Your task to perform on an android device: change the clock style Image 0: 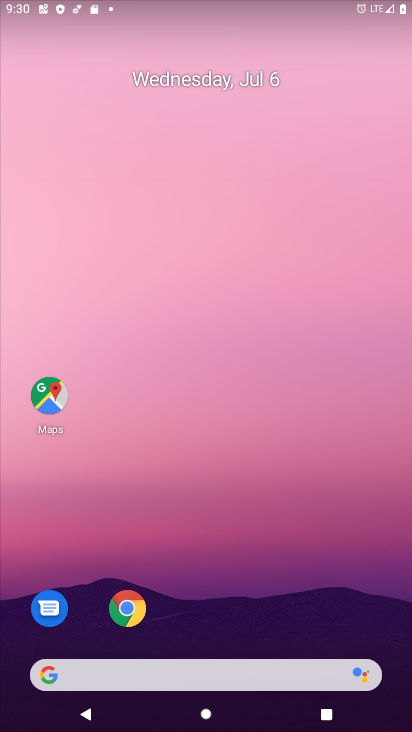
Step 0: drag from (360, 621) to (242, 70)
Your task to perform on an android device: change the clock style Image 1: 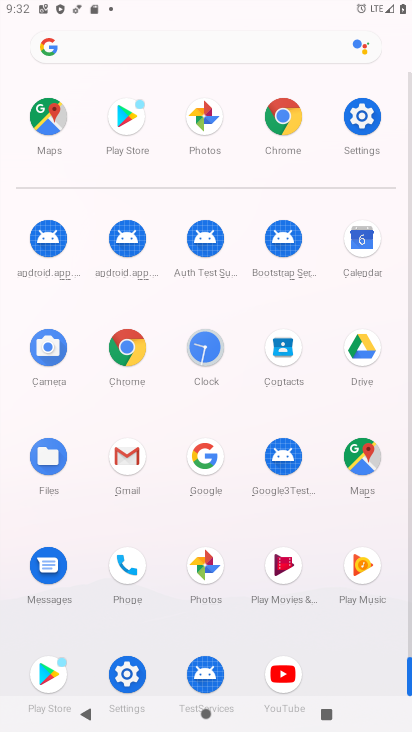
Step 1: click (207, 343)
Your task to perform on an android device: change the clock style Image 2: 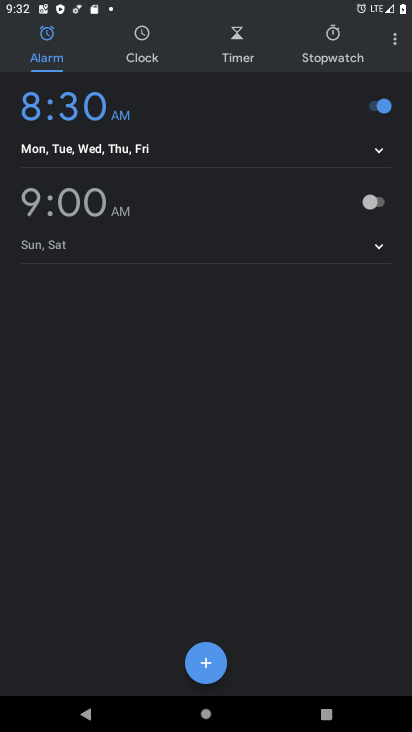
Step 2: click (394, 45)
Your task to perform on an android device: change the clock style Image 3: 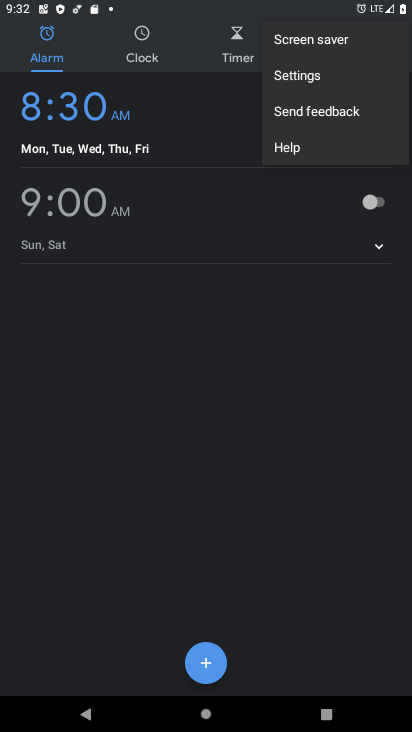
Step 3: click (294, 83)
Your task to perform on an android device: change the clock style Image 4: 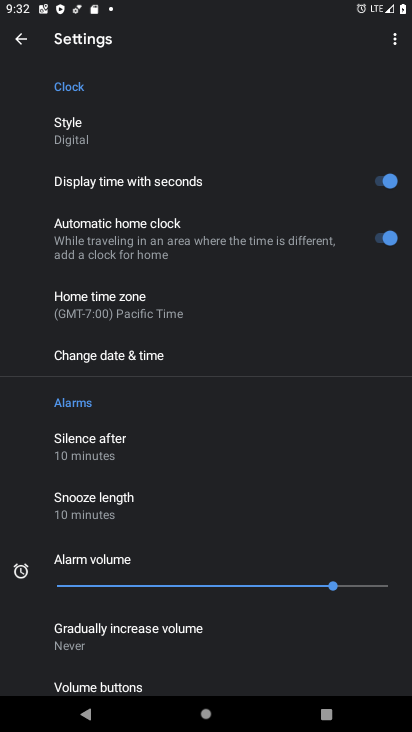
Step 4: click (113, 135)
Your task to perform on an android device: change the clock style Image 5: 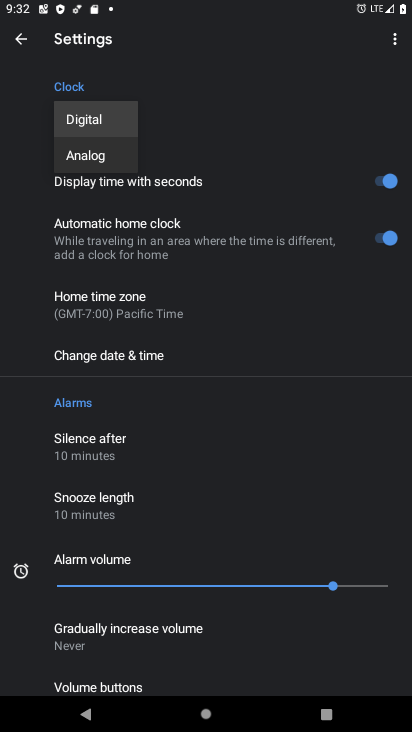
Step 5: click (97, 153)
Your task to perform on an android device: change the clock style Image 6: 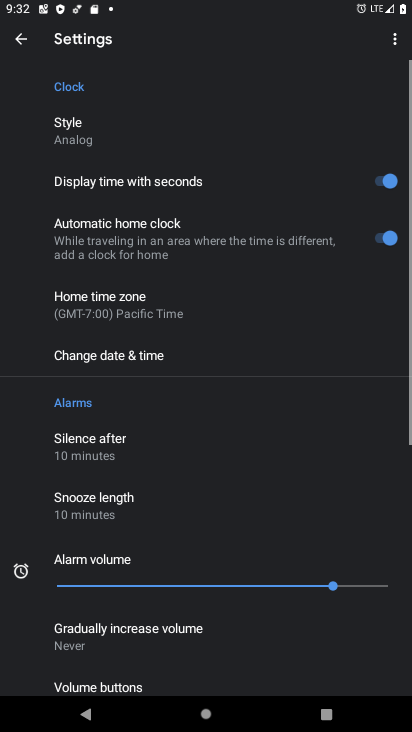
Step 6: task complete